Your task to perform on an android device: delete location history Image 0: 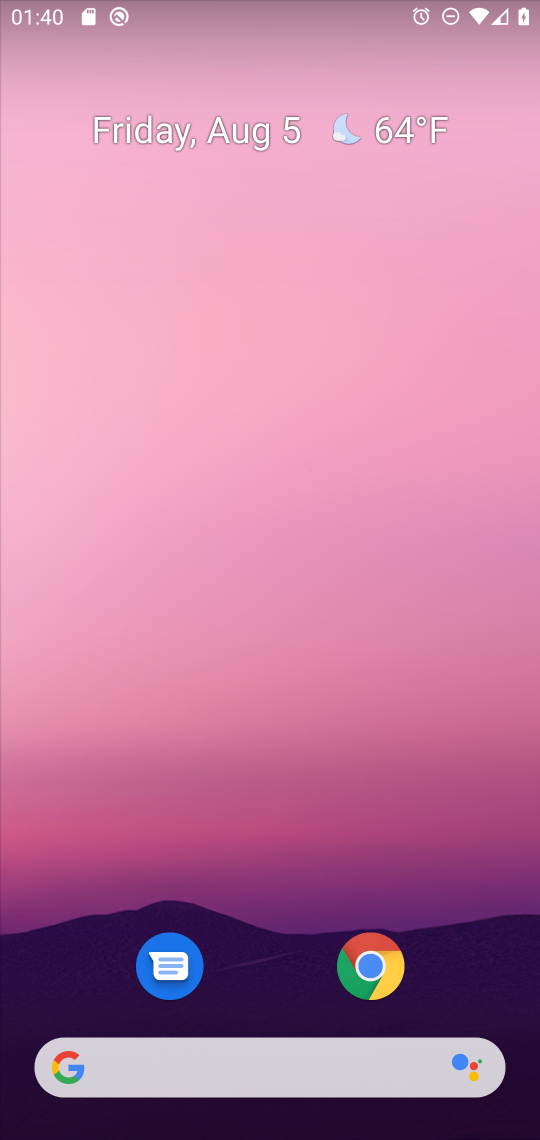
Step 0: drag from (309, 891) to (293, 6)
Your task to perform on an android device: delete location history Image 1: 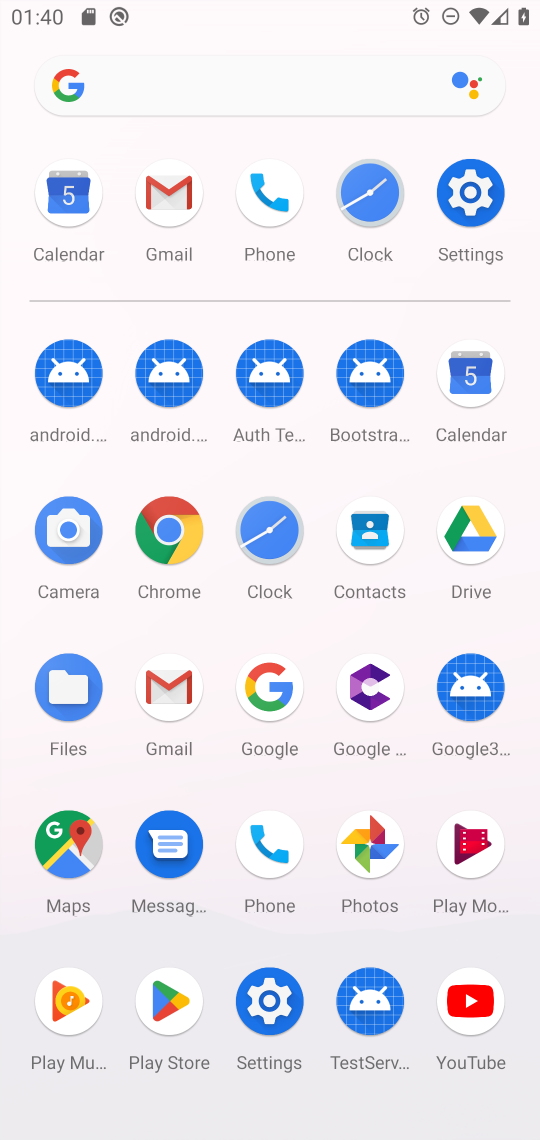
Step 1: click (73, 846)
Your task to perform on an android device: delete location history Image 2: 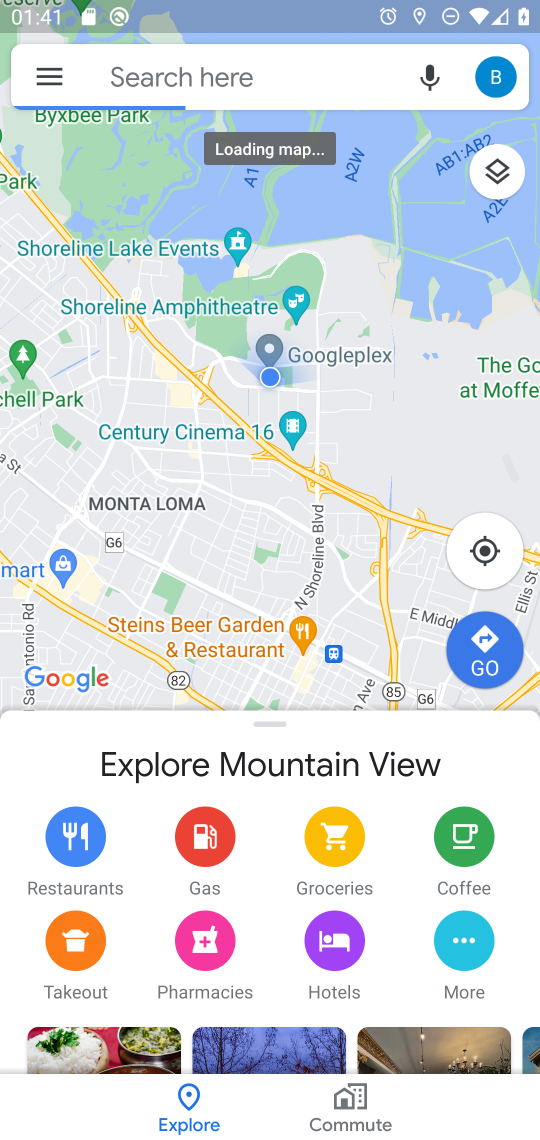
Step 2: click (37, 78)
Your task to perform on an android device: delete location history Image 3: 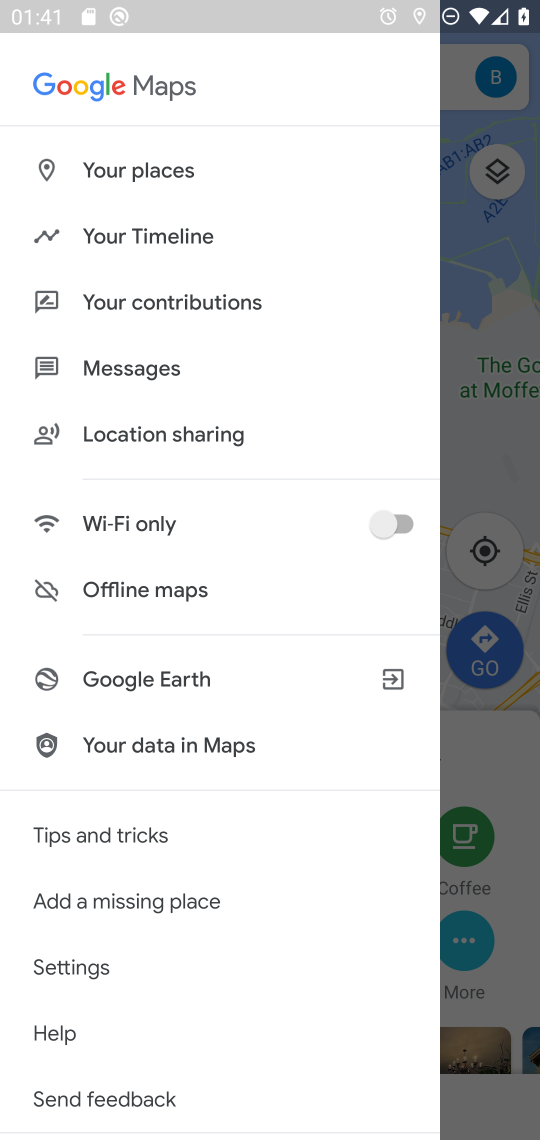
Step 3: click (160, 217)
Your task to perform on an android device: delete location history Image 4: 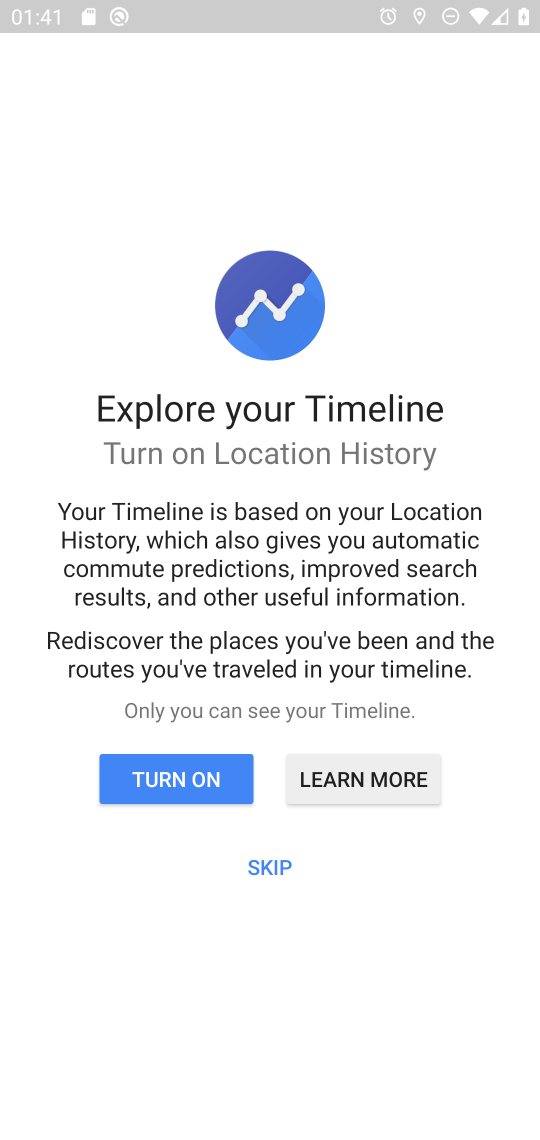
Step 4: click (238, 774)
Your task to perform on an android device: delete location history Image 5: 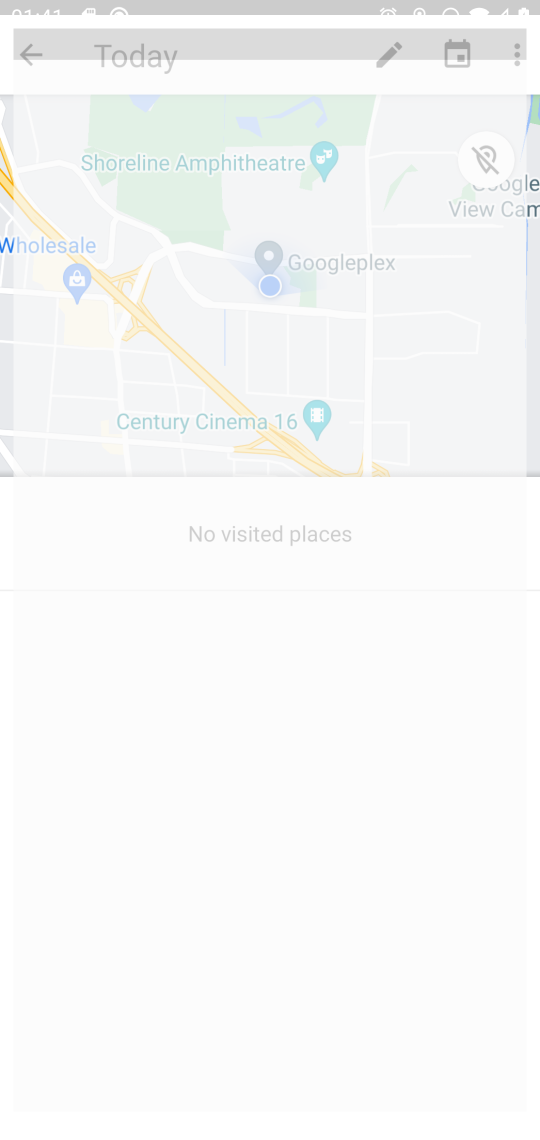
Step 5: click (501, 70)
Your task to perform on an android device: delete location history Image 6: 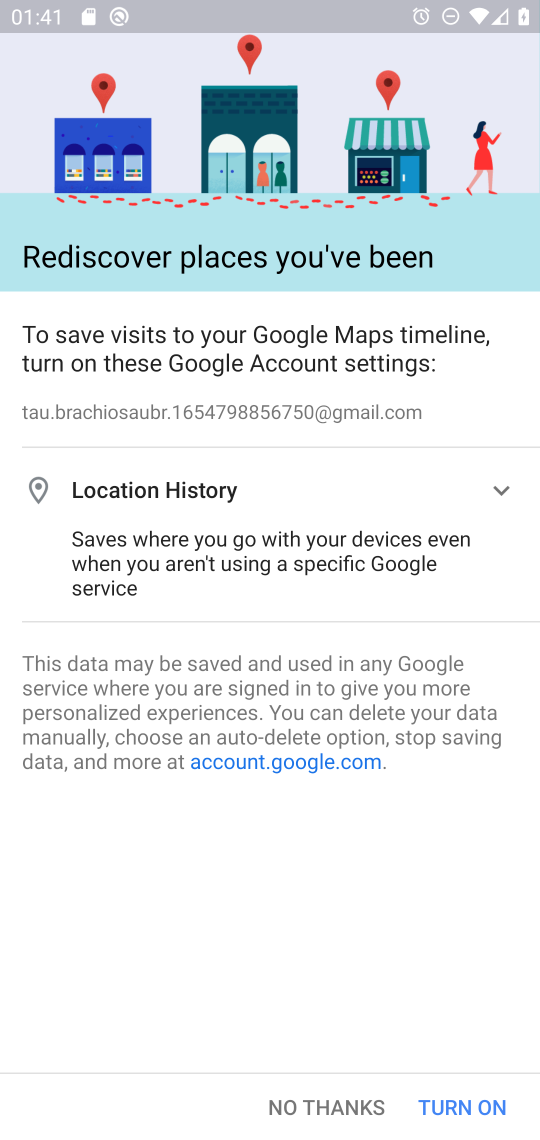
Step 6: click (498, 1096)
Your task to perform on an android device: delete location history Image 7: 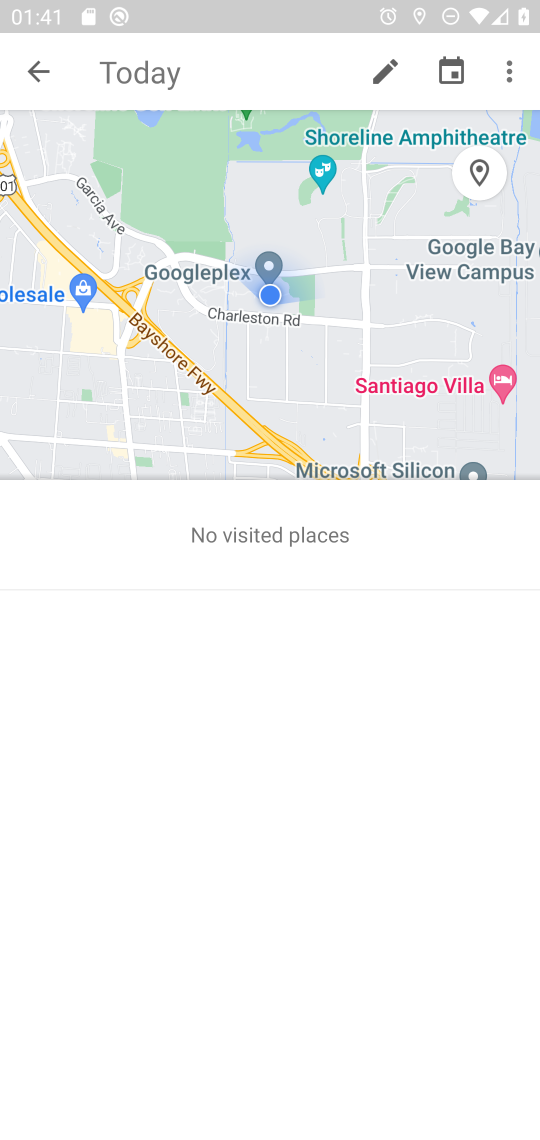
Step 7: click (502, 68)
Your task to perform on an android device: delete location history Image 8: 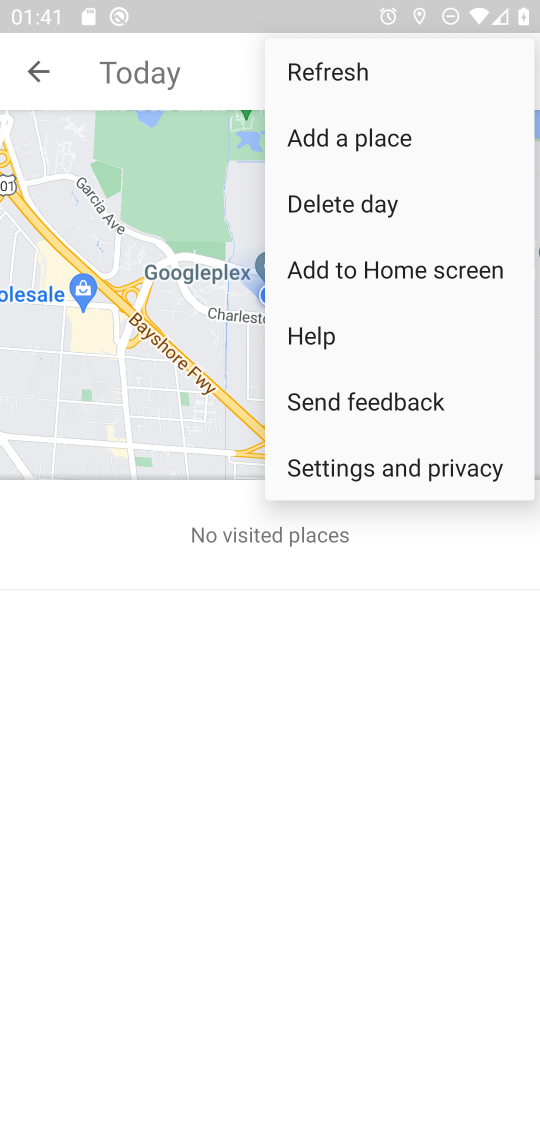
Step 8: click (427, 465)
Your task to perform on an android device: delete location history Image 9: 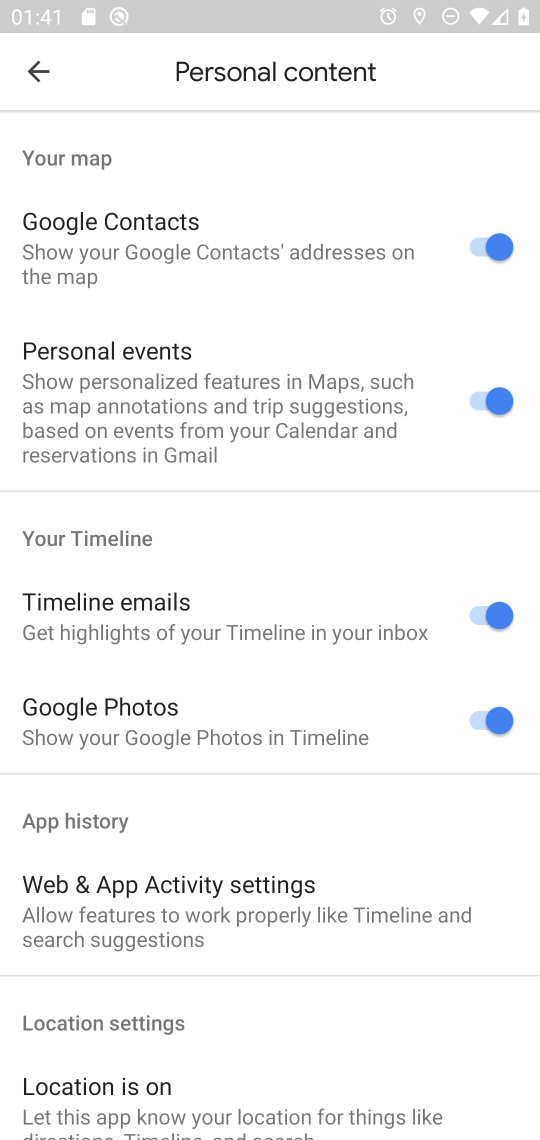
Step 9: drag from (240, 1006) to (294, 90)
Your task to perform on an android device: delete location history Image 10: 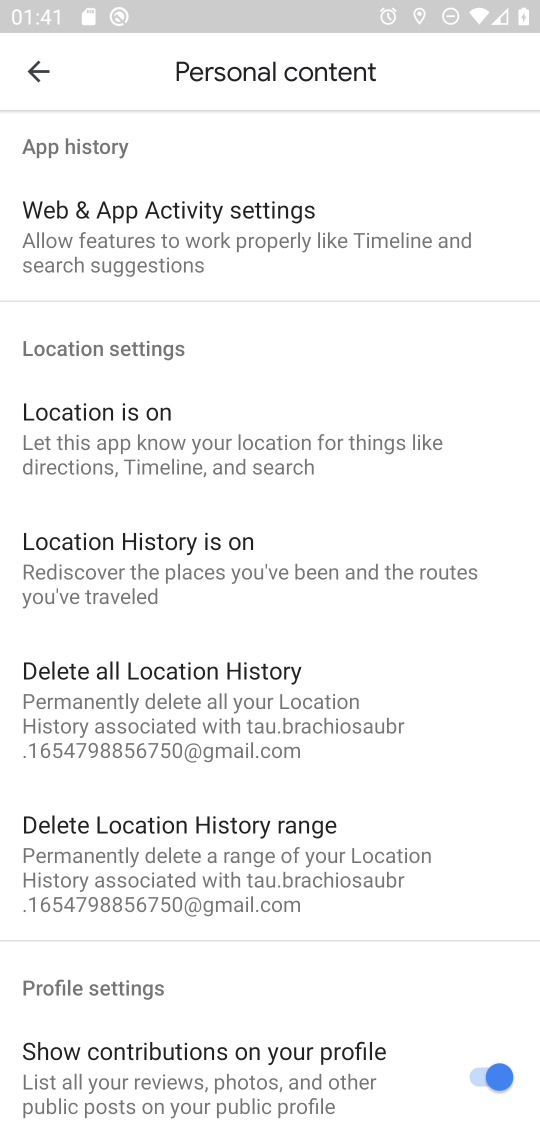
Step 10: click (224, 702)
Your task to perform on an android device: delete location history Image 11: 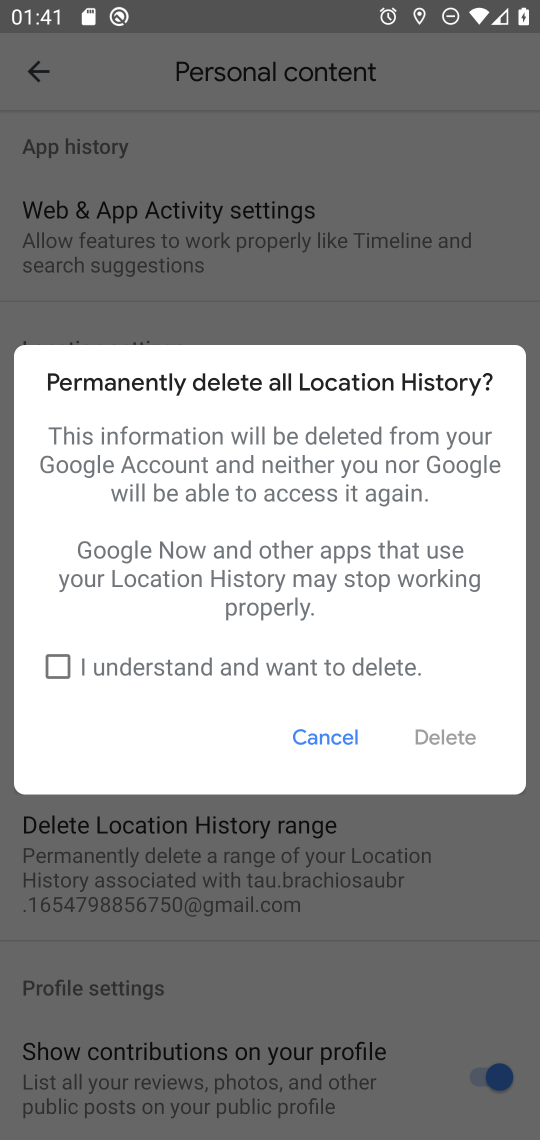
Step 11: click (54, 665)
Your task to perform on an android device: delete location history Image 12: 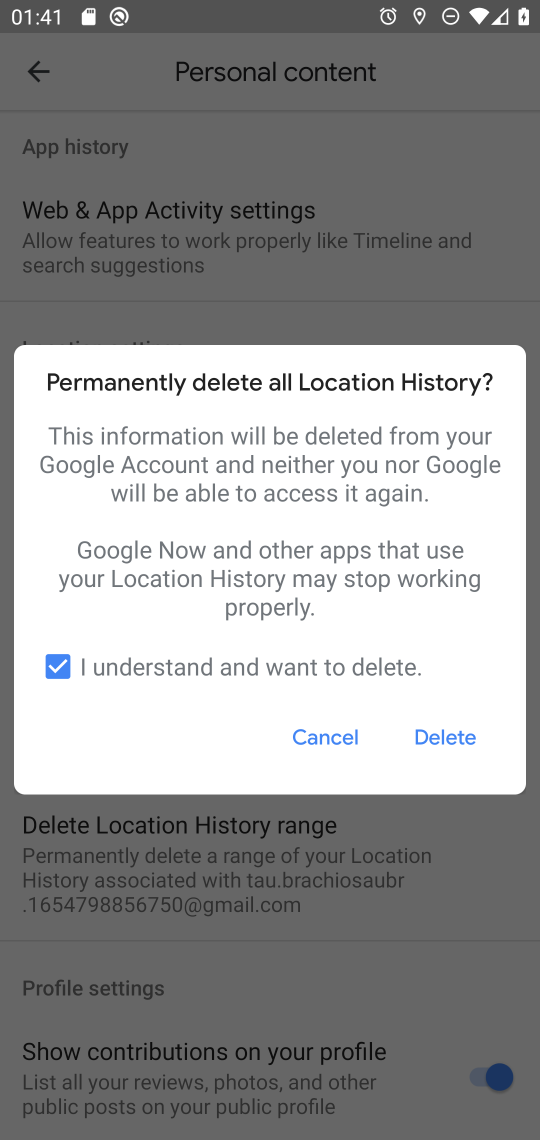
Step 12: click (460, 725)
Your task to perform on an android device: delete location history Image 13: 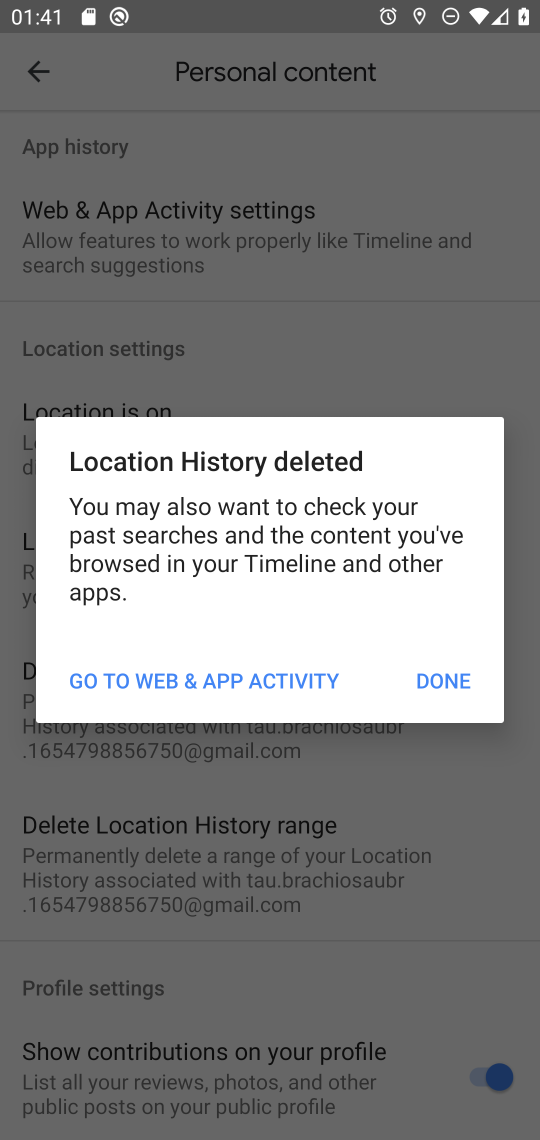
Step 13: click (451, 675)
Your task to perform on an android device: delete location history Image 14: 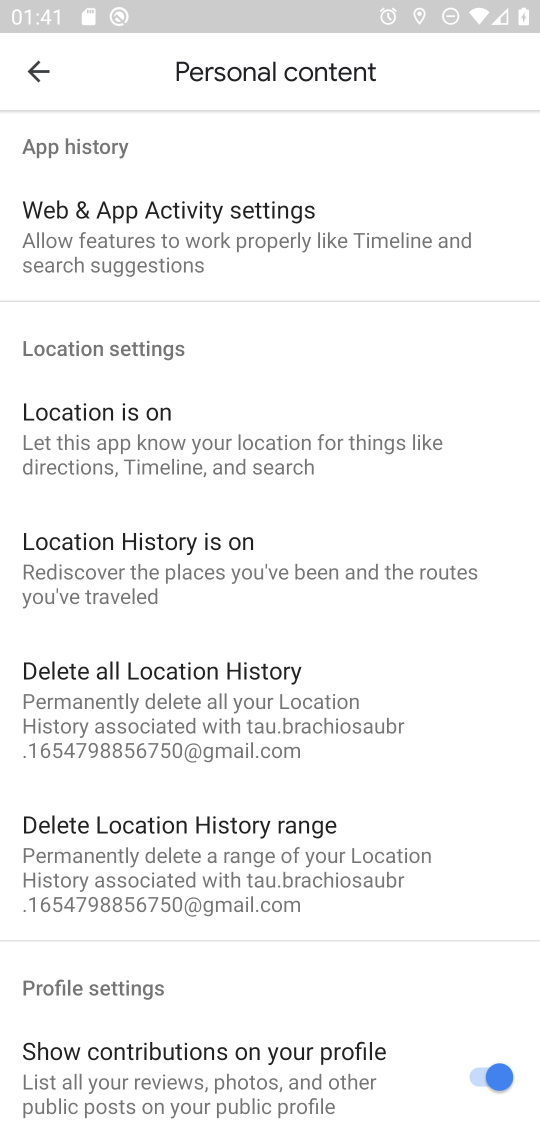
Step 14: task complete